Your task to perform on an android device: View the shopping cart on amazon.com. Add "acer predator" to the cart on amazon.com, then select checkout. Image 0: 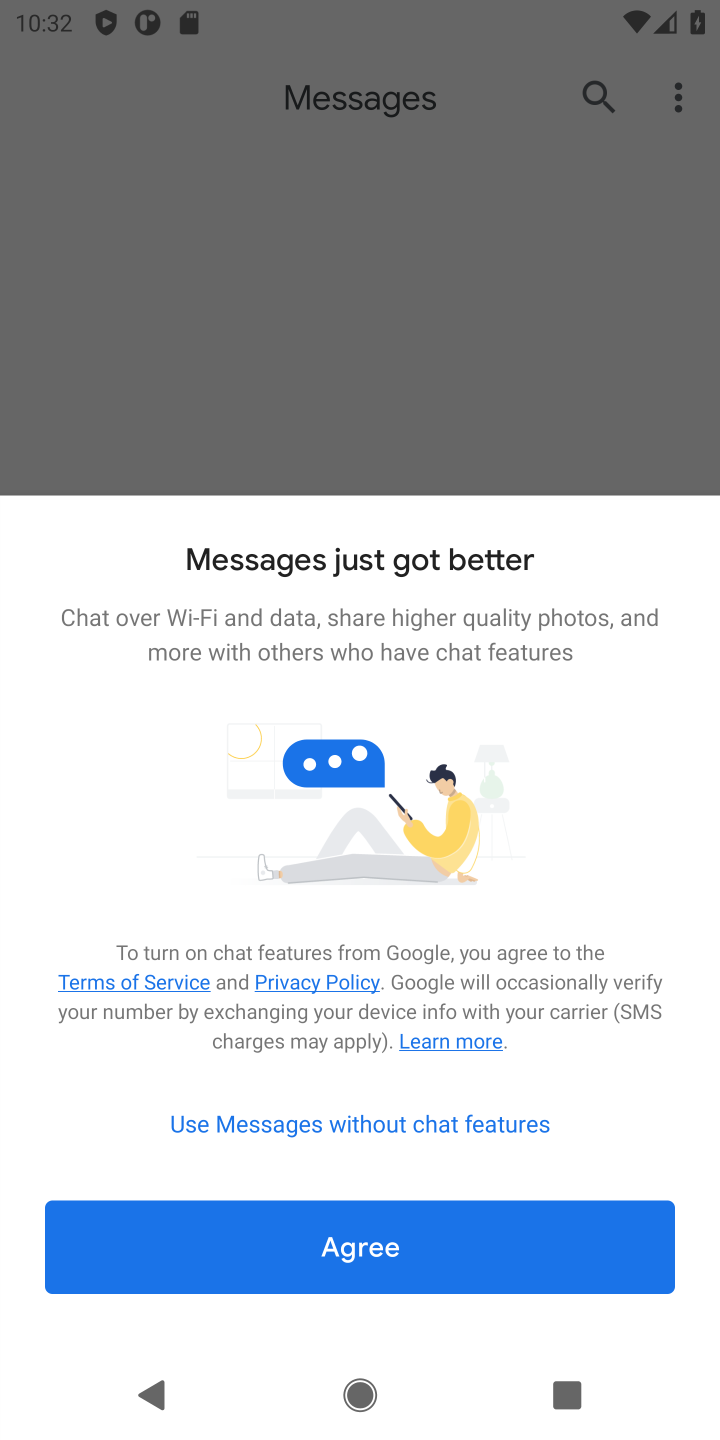
Step 0: press home button
Your task to perform on an android device: View the shopping cart on amazon.com. Add "acer predator" to the cart on amazon.com, then select checkout. Image 1: 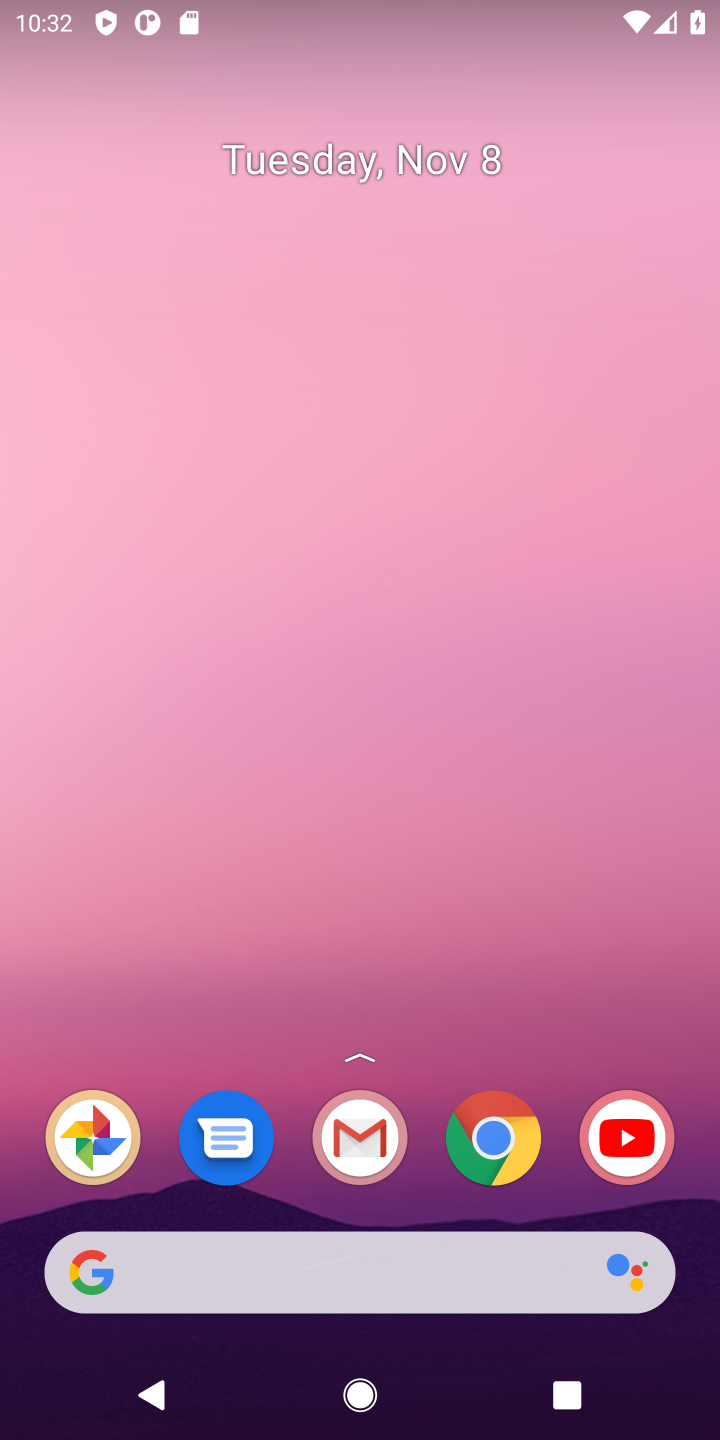
Step 1: click (492, 1151)
Your task to perform on an android device: View the shopping cart on amazon.com. Add "acer predator" to the cart on amazon.com, then select checkout. Image 2: 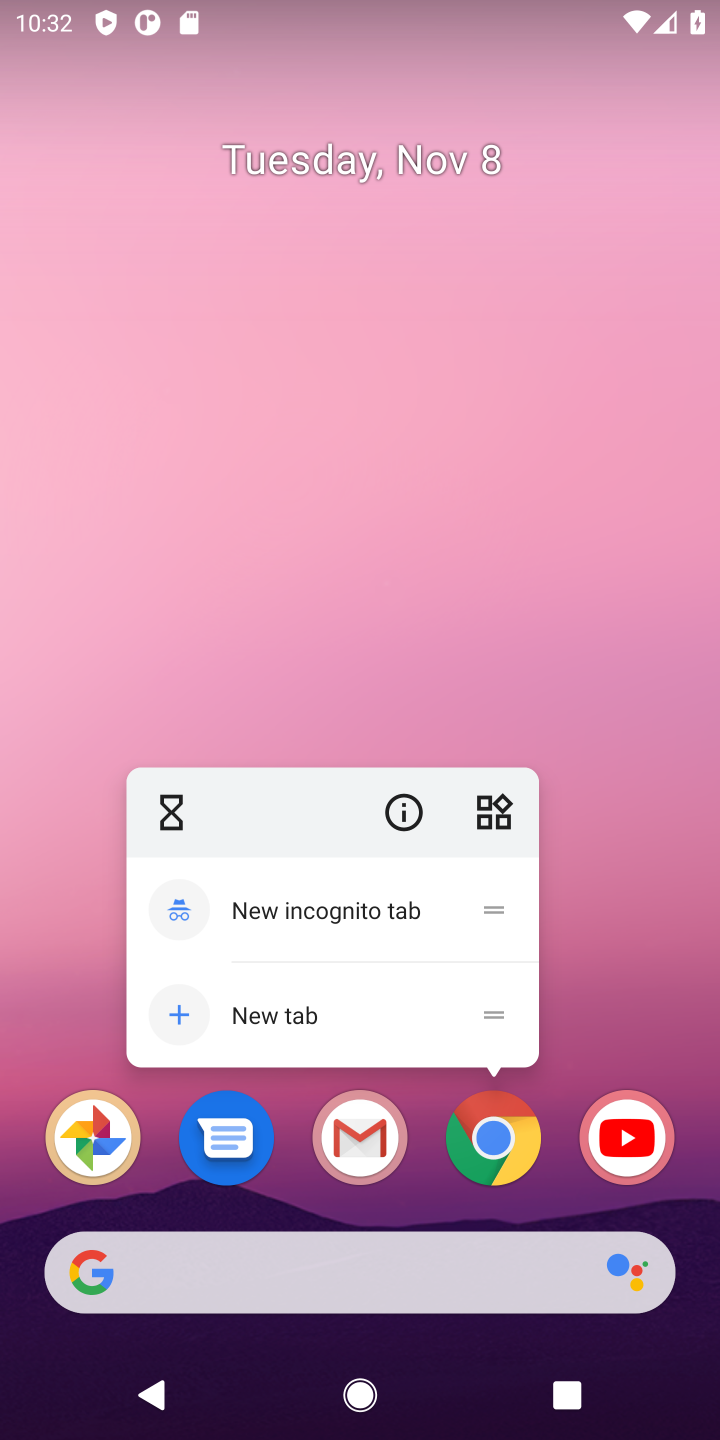
Step 2: click (499, 1137)
Your task to perform on an android device: View the shopping cart on amazon.com. Add "acer predator" to the cart on amazon.com, then select checkout. Image 3: 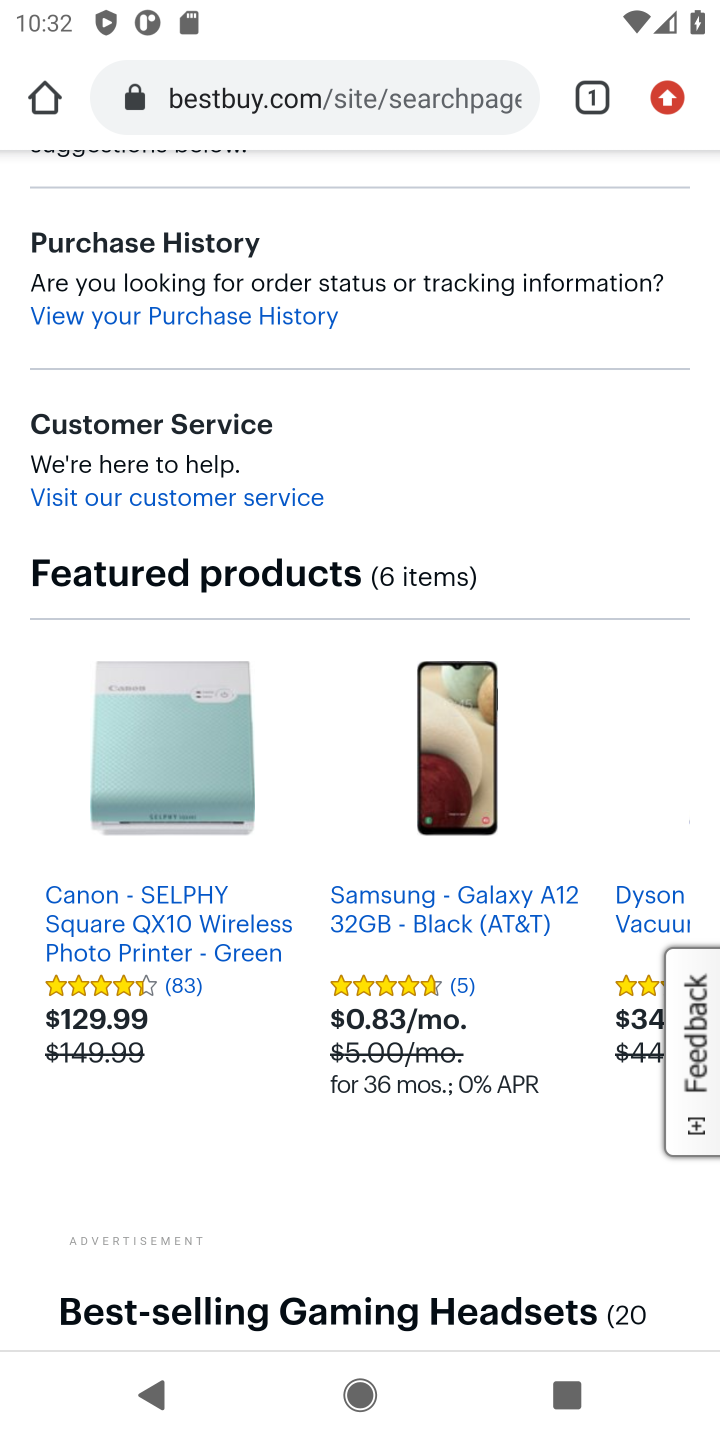
Step 3: click (361, 96)
Your task to perform on an android device: View the shopping cart on amazon.com. Add "acer predator" to the cart on amazon.com, then select checkout. Image 4: 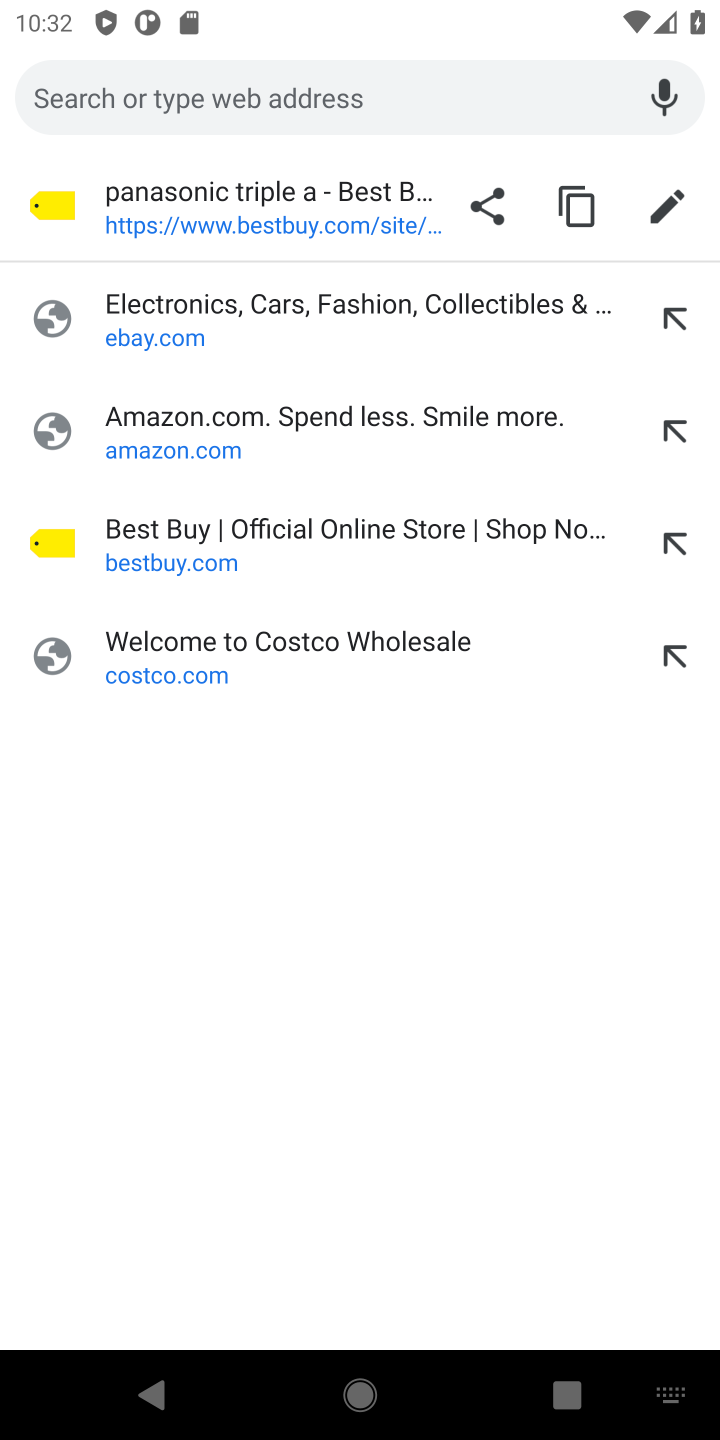
Step 4: click (183, 448)
Your task to perform on an android device: View the shopping cart on amazon.com. Add "acer predator" to the cart on amazon.com, then select checkout. Image 5: 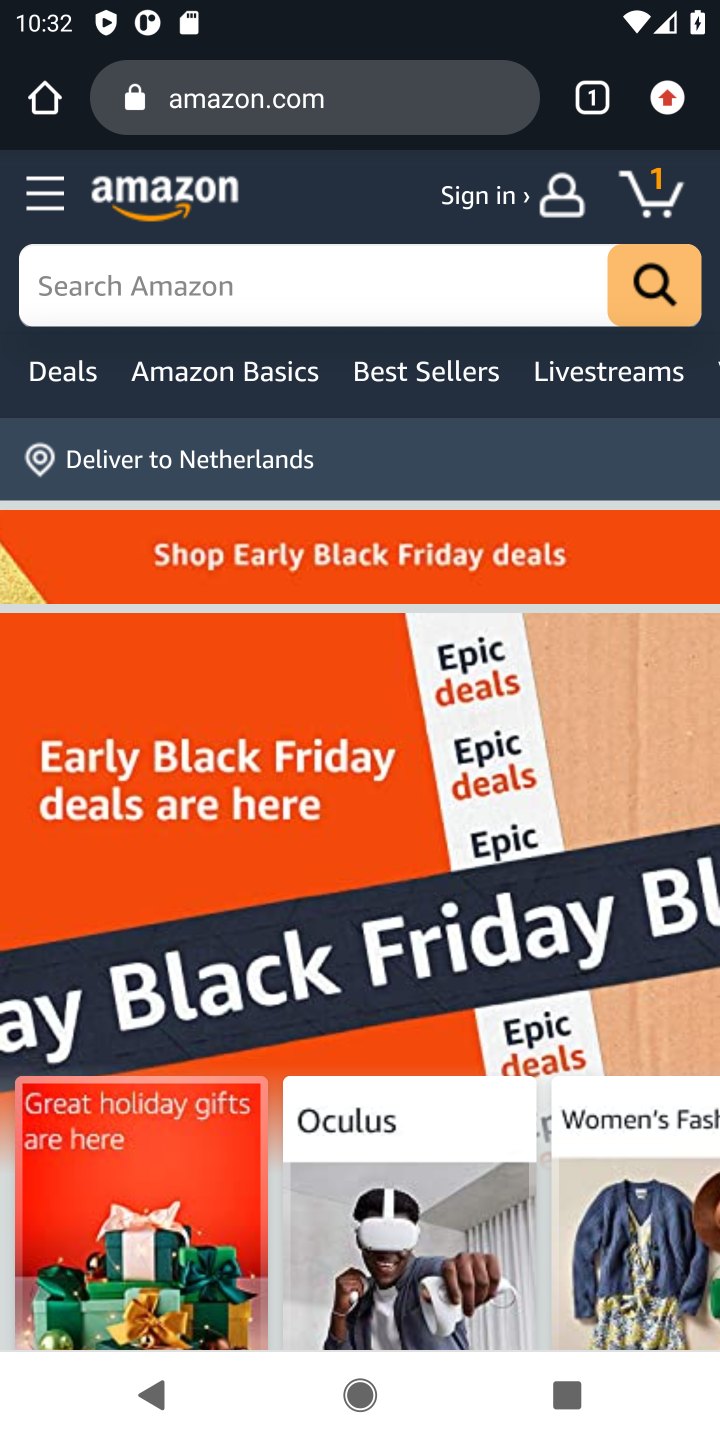
Step 5: click (134, 263)
Your task to perform on an android device: View the shopping cart on amazon.com. Add "acer predator" to the cart on amazon.com, then select checkout. Image 6: 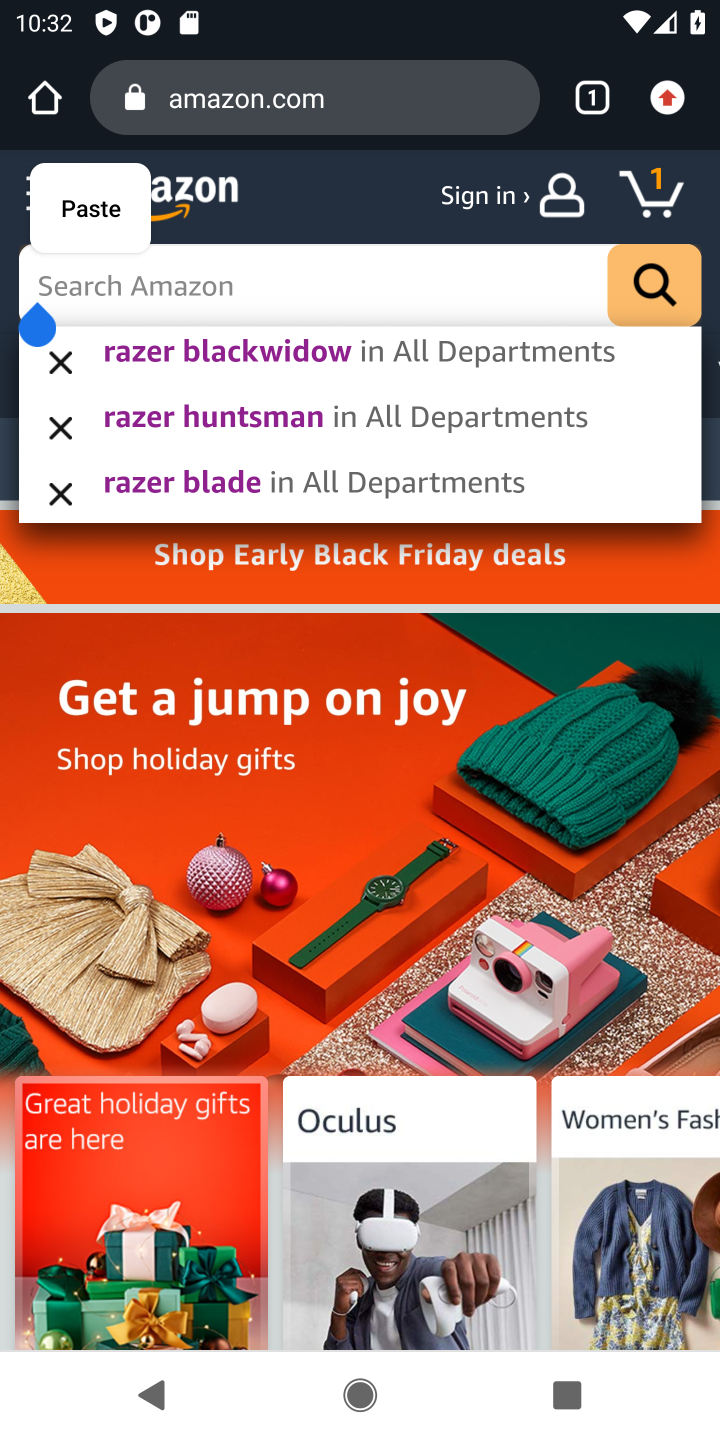
Step 6: click (144, 268)
Your task to perform on an android device: View the shopping cart on amazon.com. Add "acer predator" to the cart on amazon.com, then select checkout. Image 7: 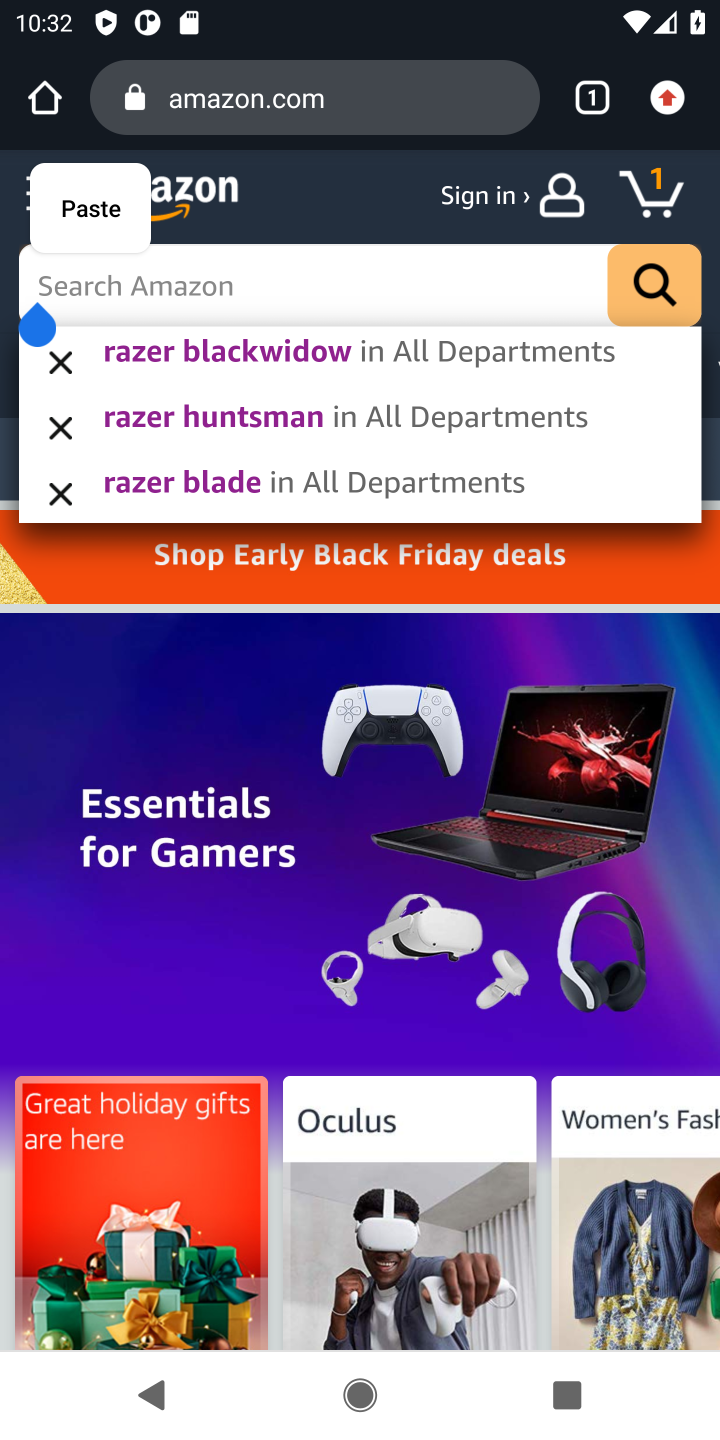
Step 7: type "acer predator"
Your task to perform on an android device: View the shopping cart on amazon.com. Add "acer predator" to the cart on amazon.com, then select checkout. Image 8: 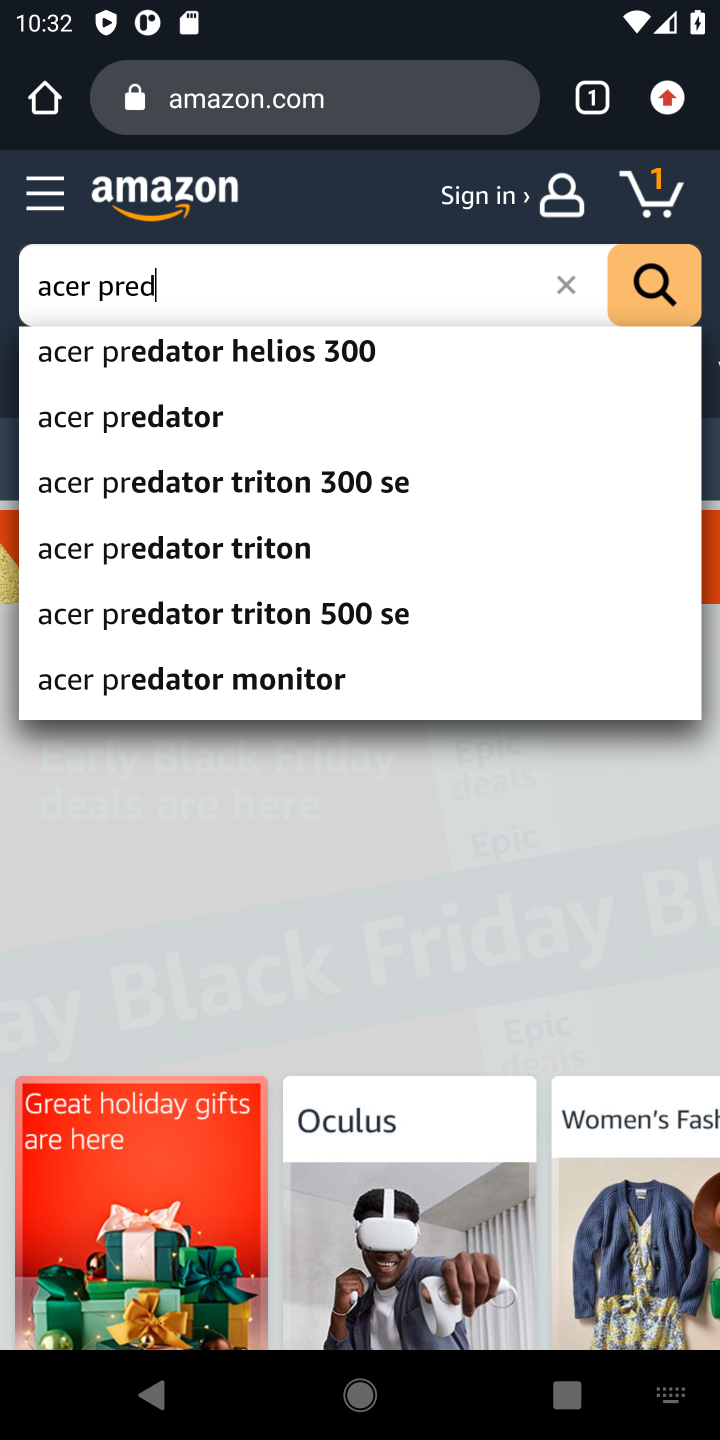
Step 8: press enter
Your task to perform on an android device: View the shopping cart on amazon.com. Add "acer predator" to the cart on amazon.com, then select checkout. Image 9: 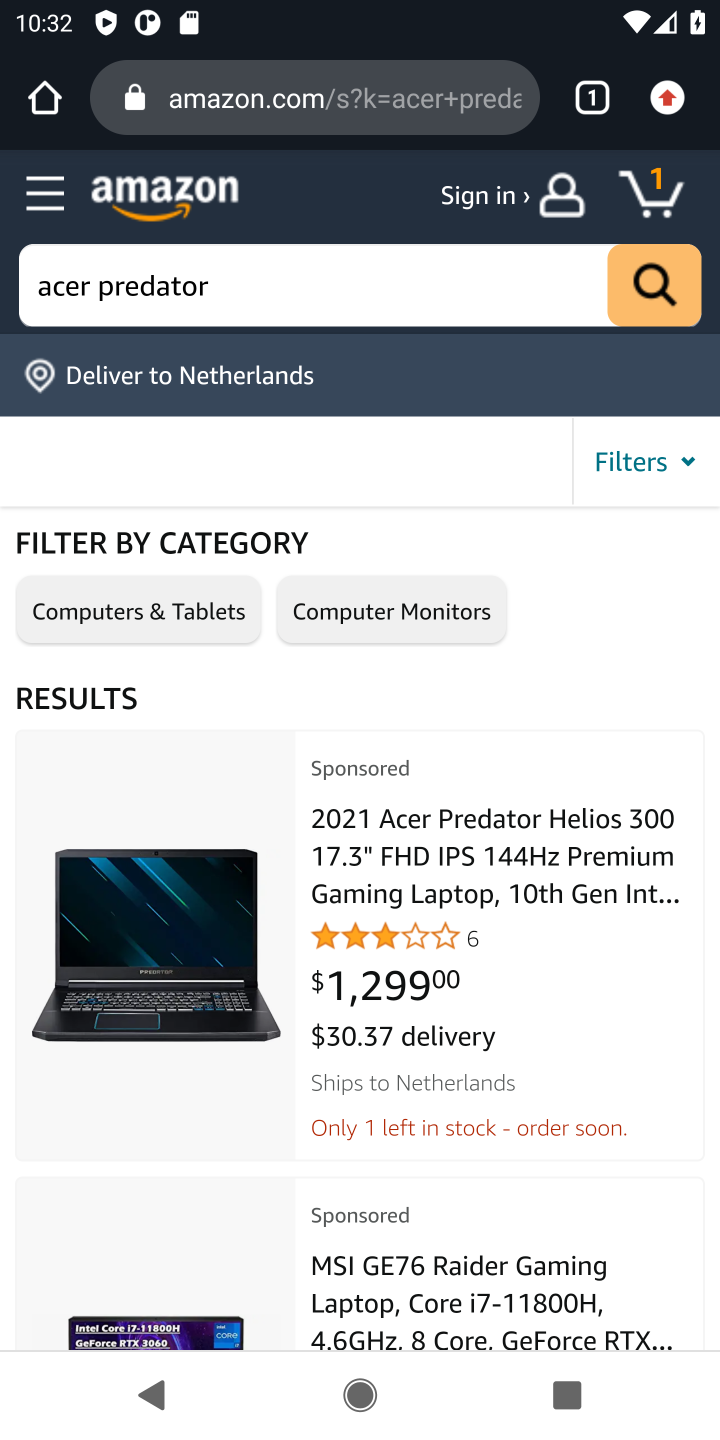
Step 9: click (531, 865)
Your task to perform on an android device: View the shopping cart on amazon.com. Add "acer predator" to the cart on amazon.com, then select checkout. Image 10: 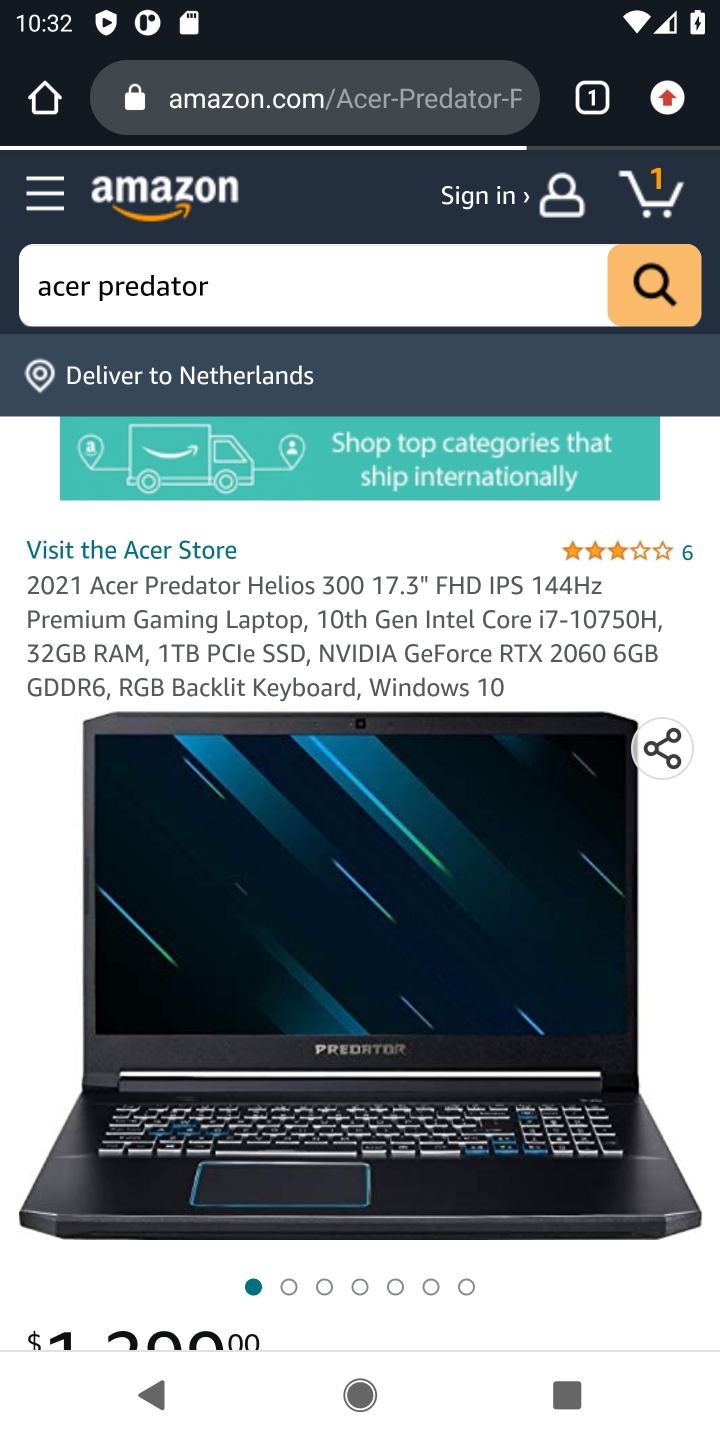
Step 10: drag from (381, 1262) to (700, 184)
Your task to perform on an android device: View the shopping cart on amazon.com. Add "acer predator" to the cart on amazon.com, then select checkout. Image 11: 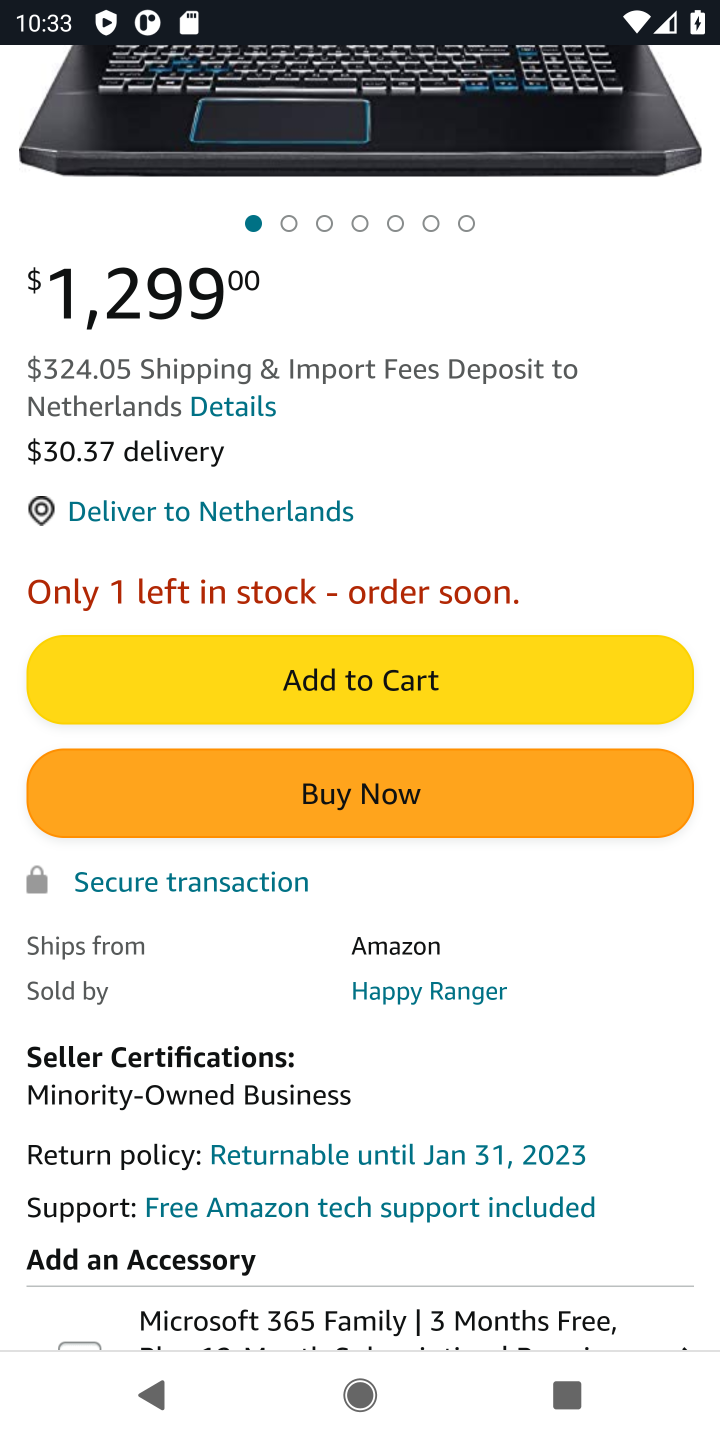
Step 11: click (360, 671)
Your task to perform on an android device: View the shopping cart on amazon.com. Add "acer predator" to the cart on amazon.com, then select checkout. Image 12: 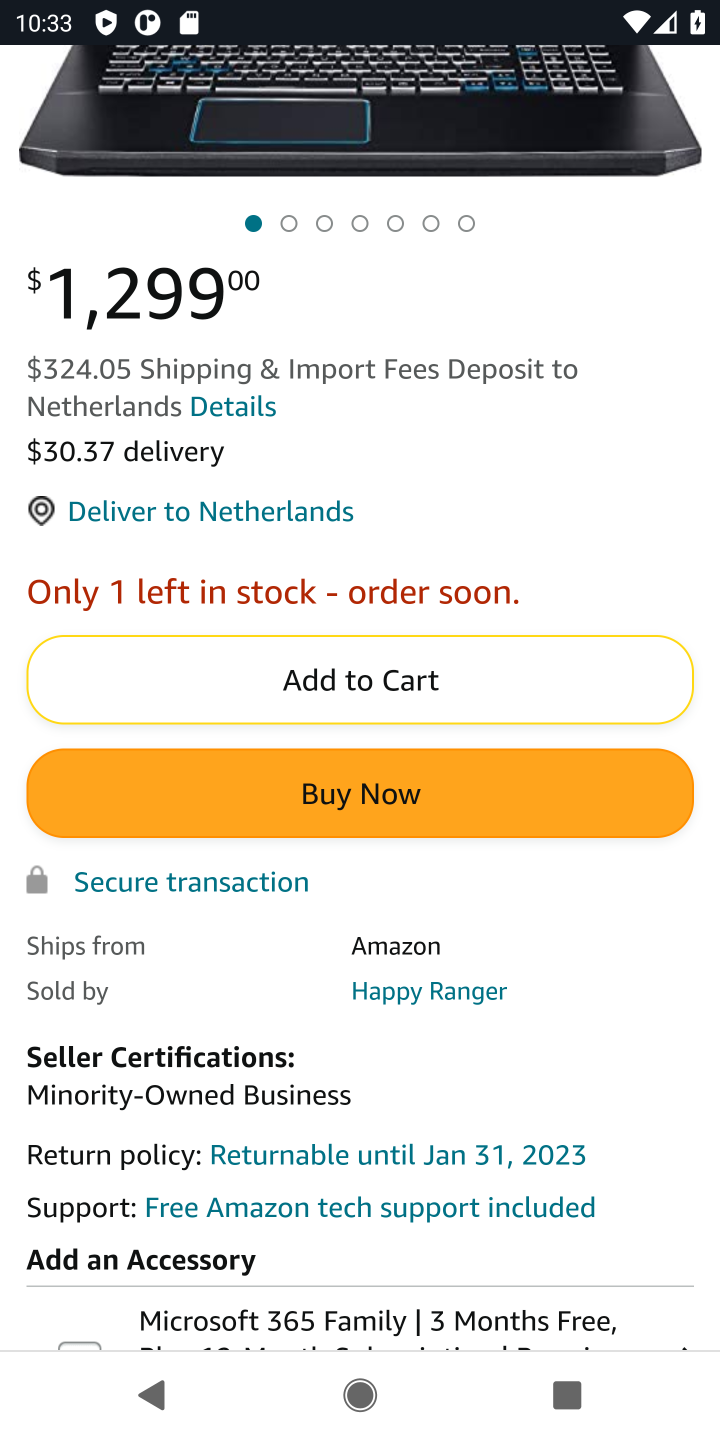
Step 12: click (360, 675)
Your task to perform on an android device: View the shopping cart on amazon.com. Add "acer predator" to the cart on amazon.com, then select checkout. Image 13: 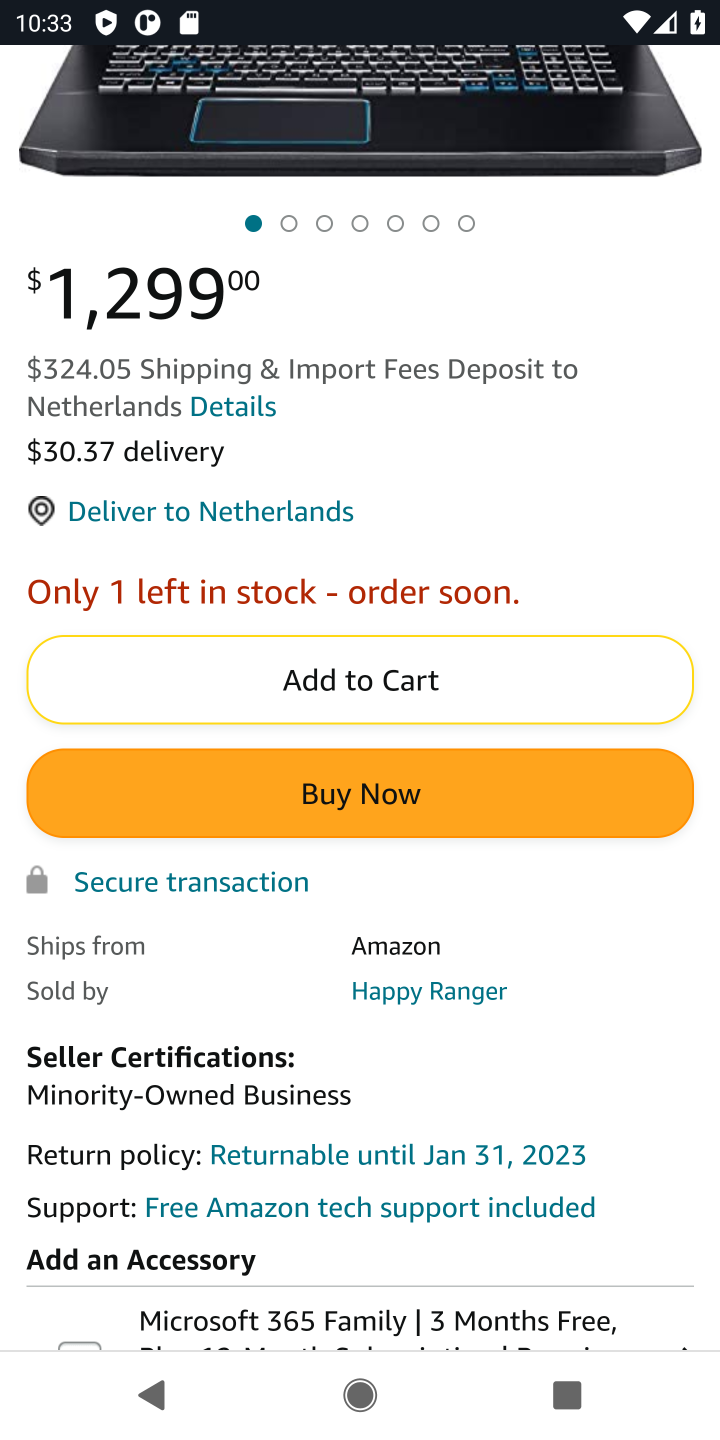
Step 13: click (424, 687)
Your task to perform on an android device: View the shopping cart on amazon.com. Add "acer predator" to the cart on amazon.com, then select checkout. Image 14: 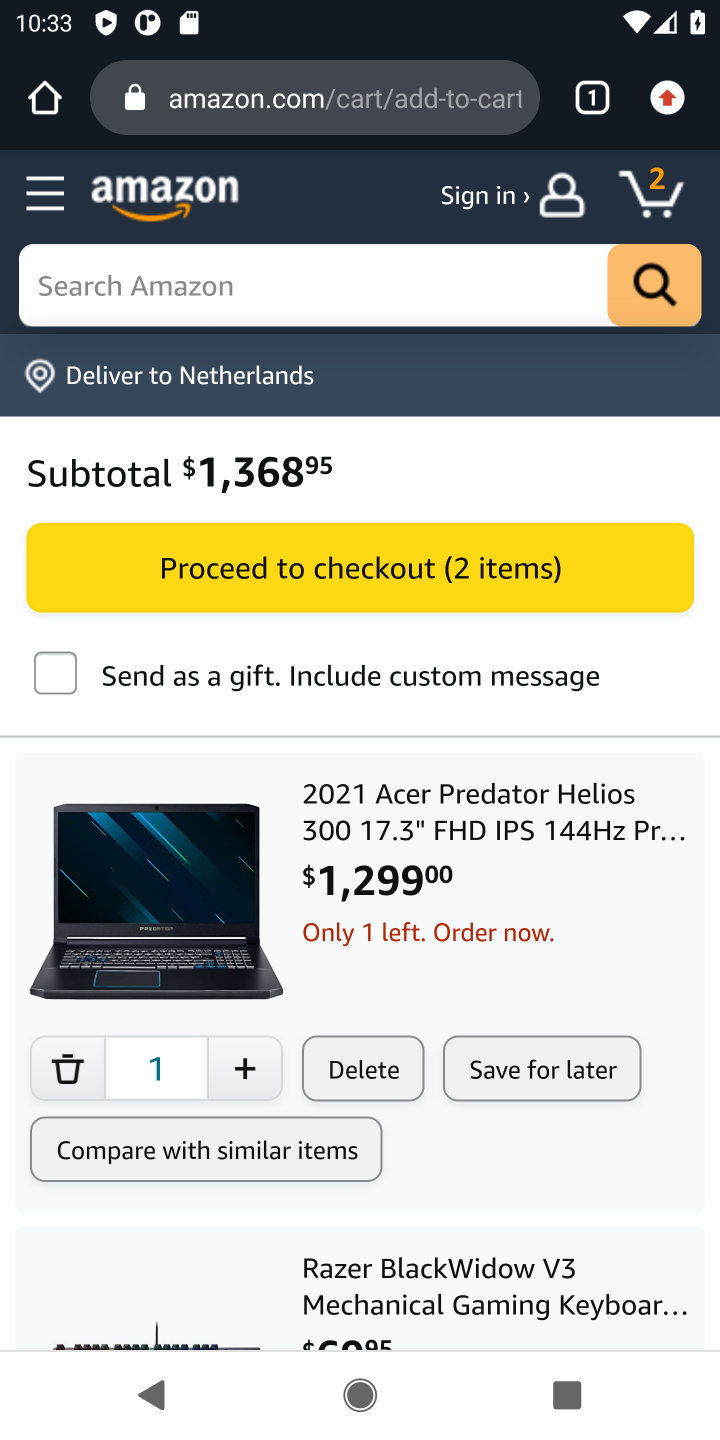
Step 14: click (647, 202)
Your task to perform on an android device: View the shopping cart on amazon.com. Add "acer predator" to the cart on amazon.com, then select checkout. Image 15: 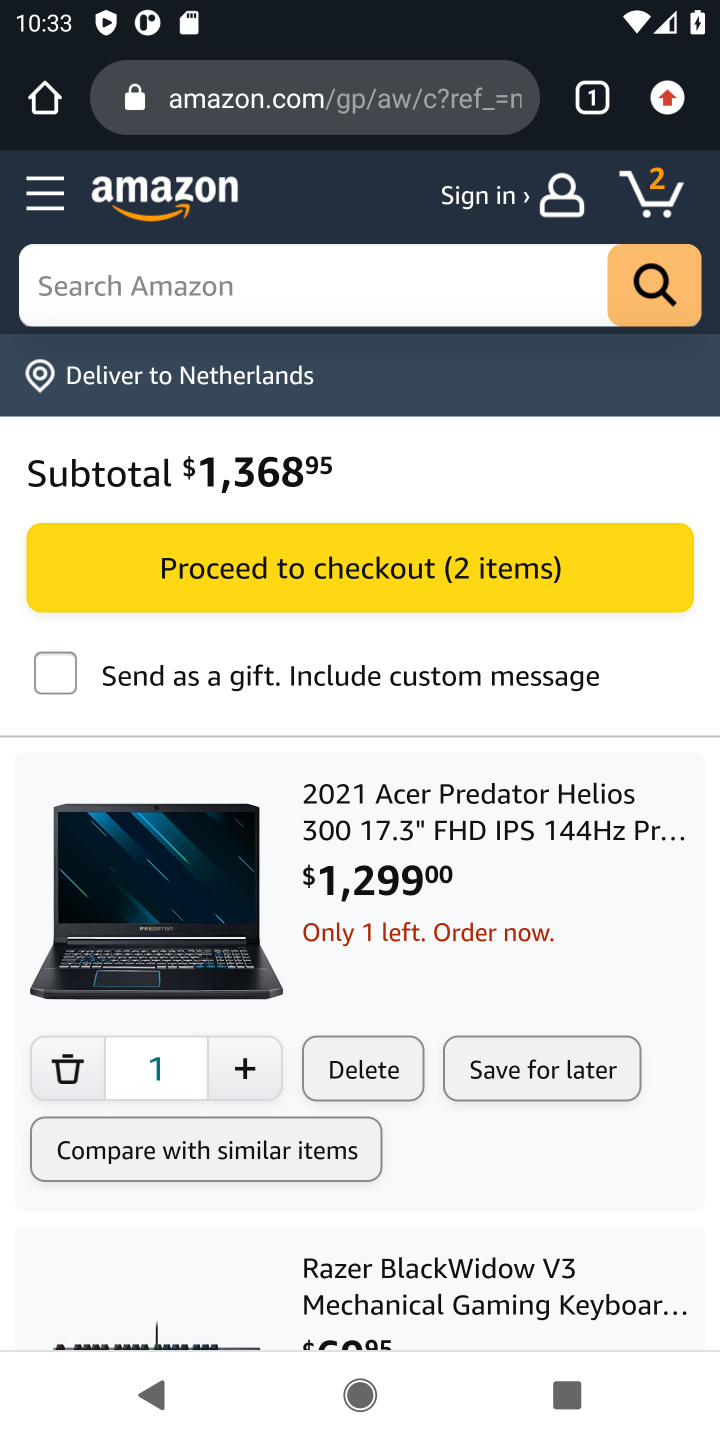
Step 15: drag from (317, 1208) to (573, 651)
Your task to perform on an android device: View the shopping cart on amazon.com. Add "acer predator" to the cart on amazon.com, then select checkout. Image 16: 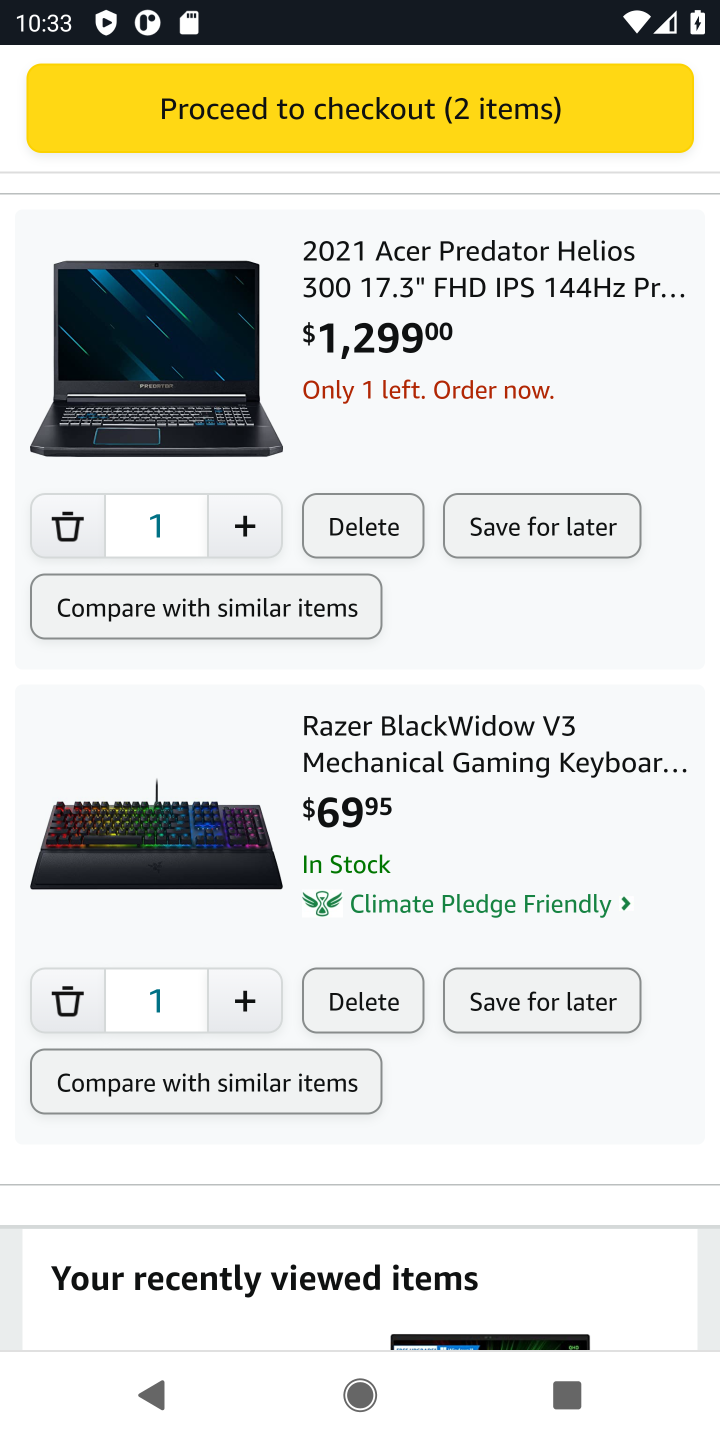
Step 16: click (372, 990)
Your task to perform on an android device: View the shopping cart on amazon.com. Add "acer predator" to the cart on amazon.com, then select checkout. Image 17: 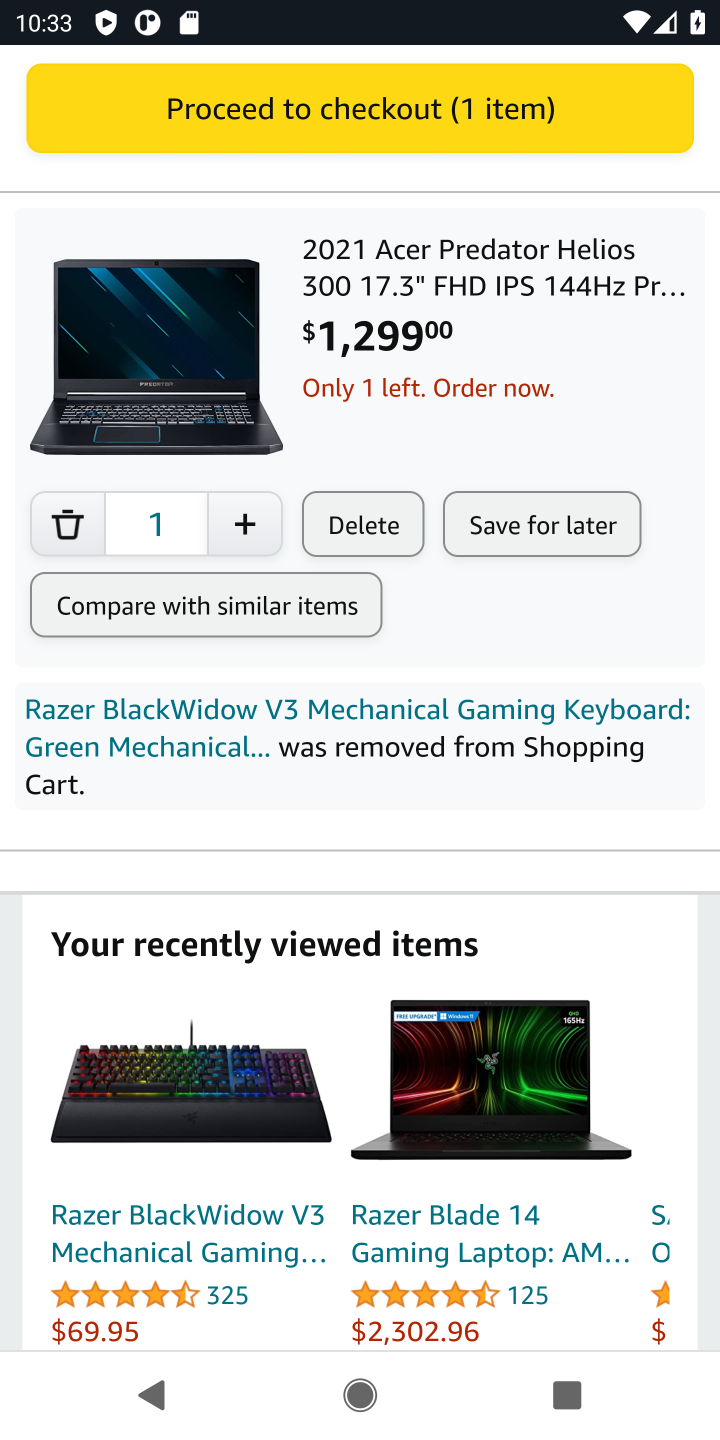
Step 17: click (365, 97)
Your task to perform on an android device: View the shopping cart on amazon.com. Add "acer predator" to the cart on amazon.com, then select checkout. Image 18: 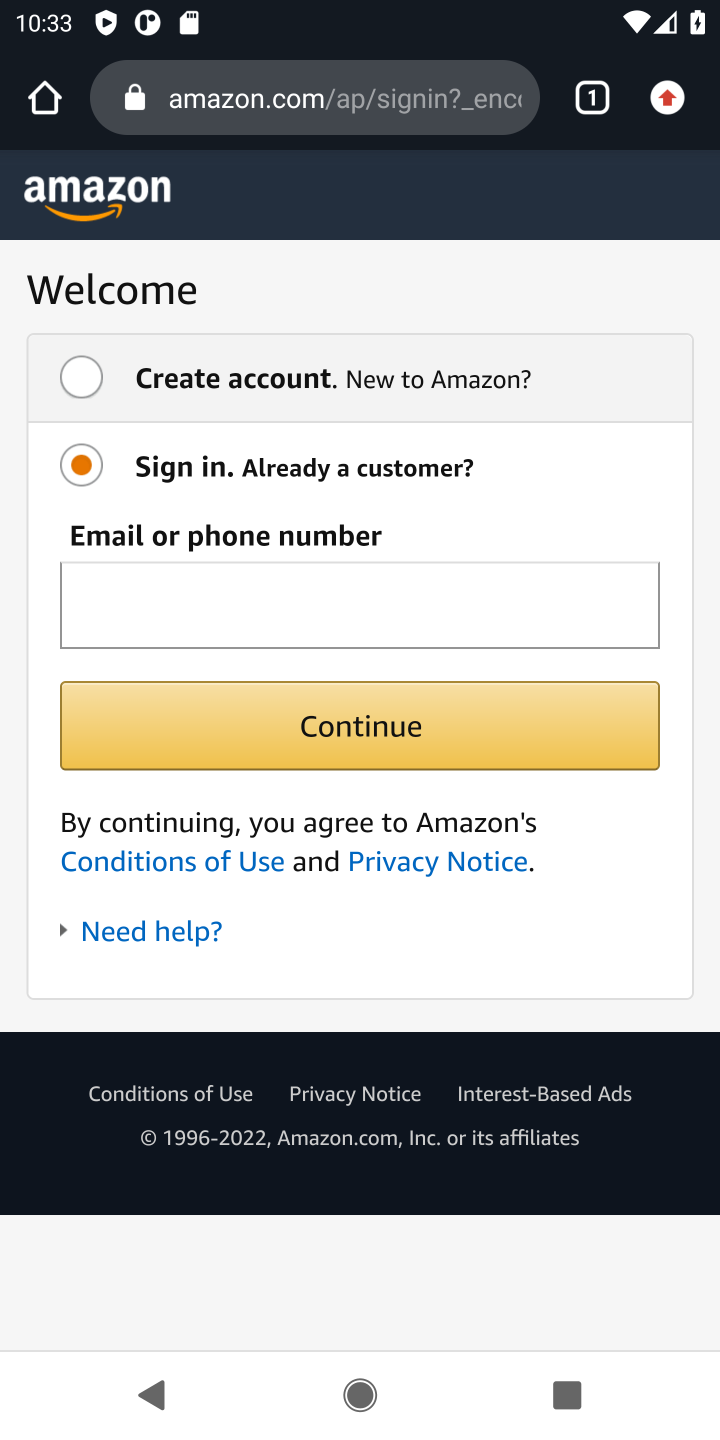
Step 18: task complete